Your task to perform on an android device: Add "alienware area 51" to the cart on ebay.com Image 0: 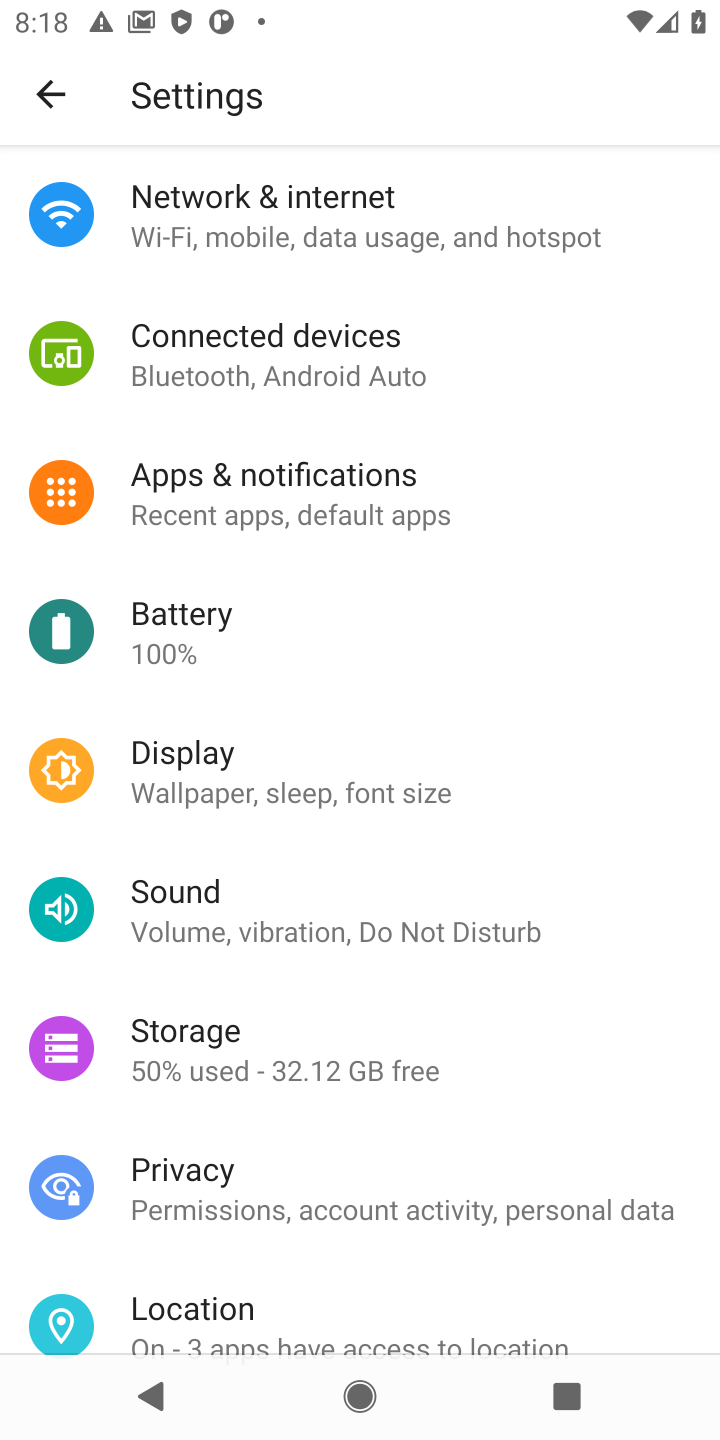
Step 0: press home button
Your task to perform on an android device: Add "alienware area 51" to the cart on ebay.com Image 1: 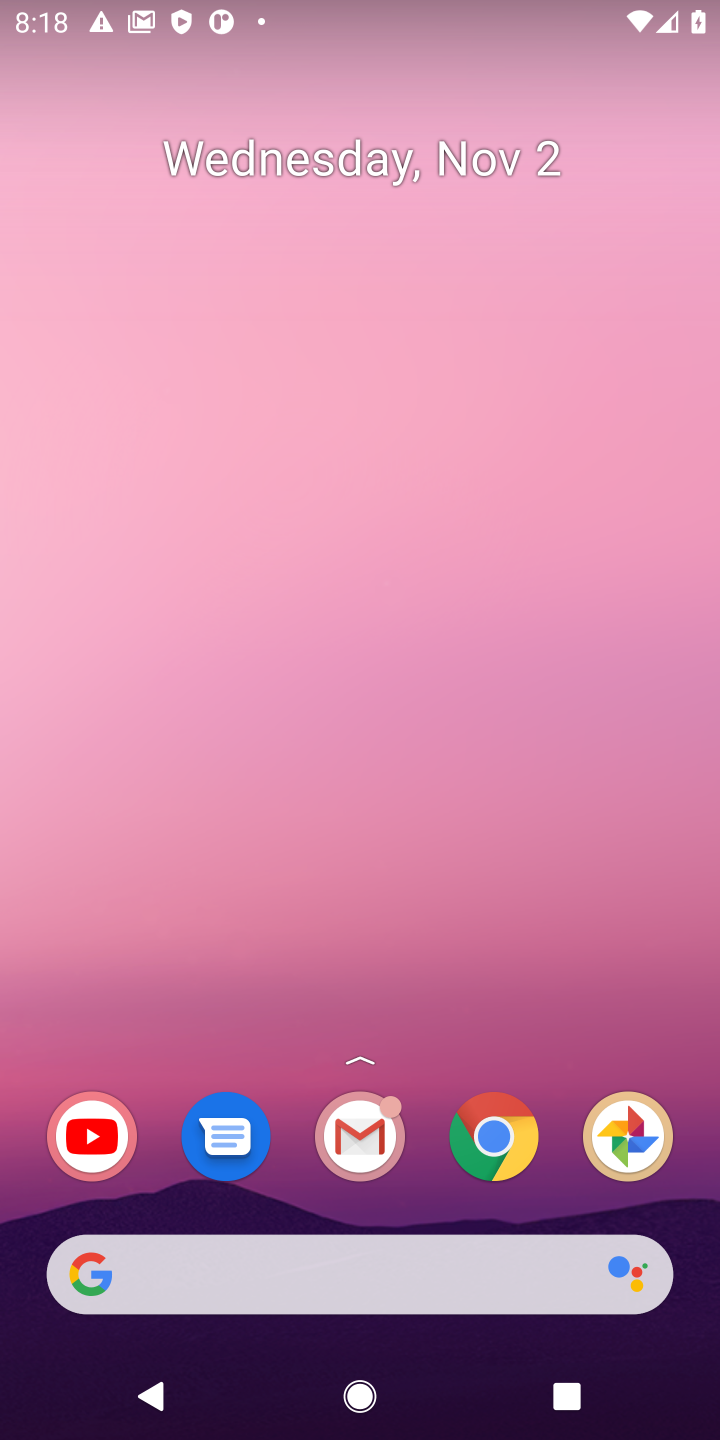
Step 1: drag from (340, 1185) to (321, 322)
Your task to perform on an android device: Add "alienware area 51" to the cart on ebay.com Image 2: 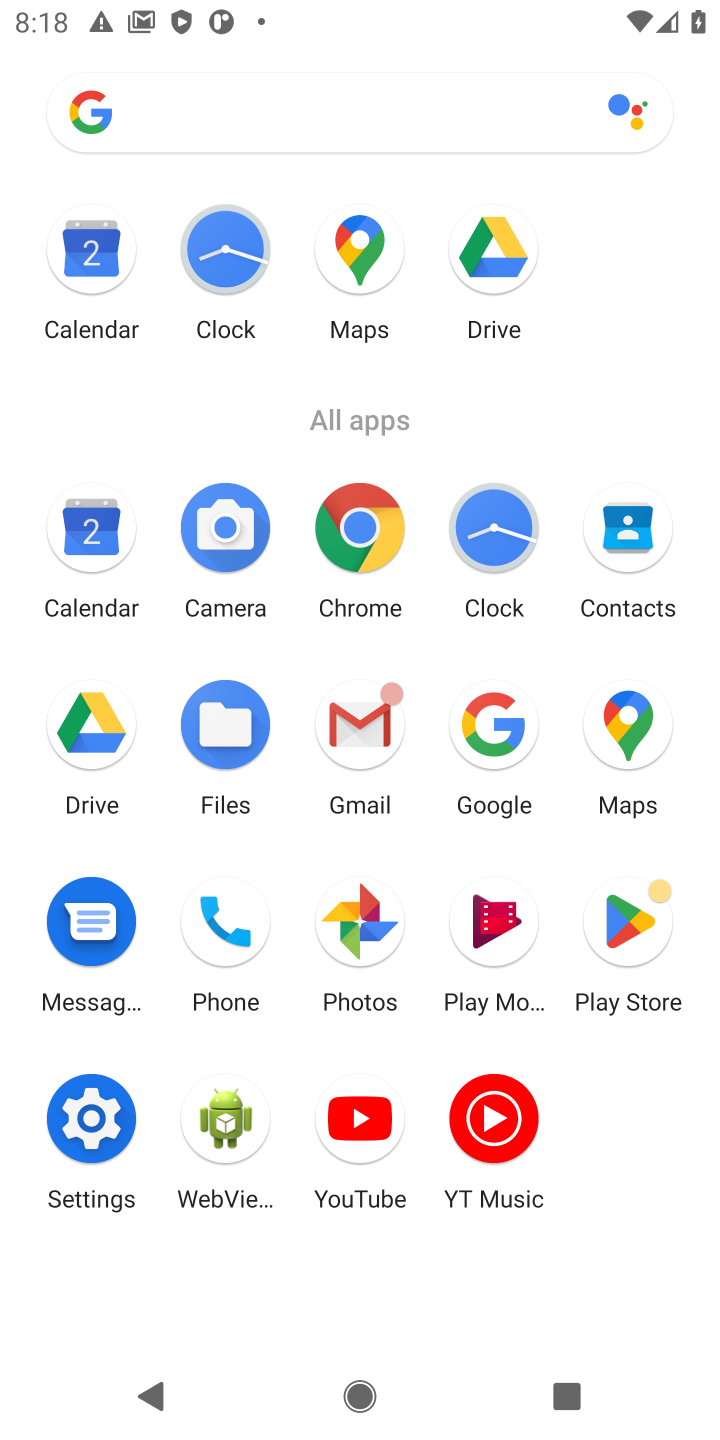
Step 2: click (500, 724)
Your task to perform on an android device: Add "alienware area 51" to the cart on ebay.com Image 3: 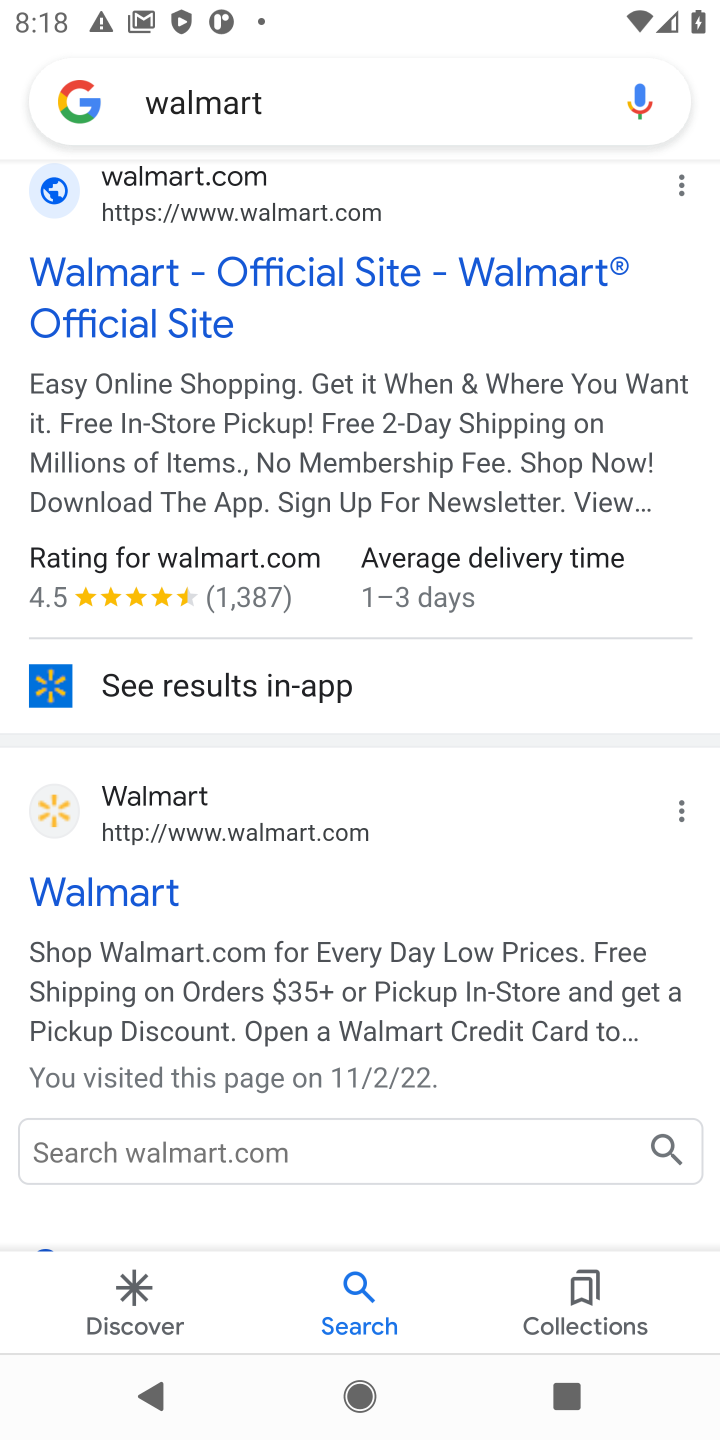
Step 3: click (53, 807)
Your task to perform on an android device: Add "alienware area 51" to the cart on ebay.com Image 4: 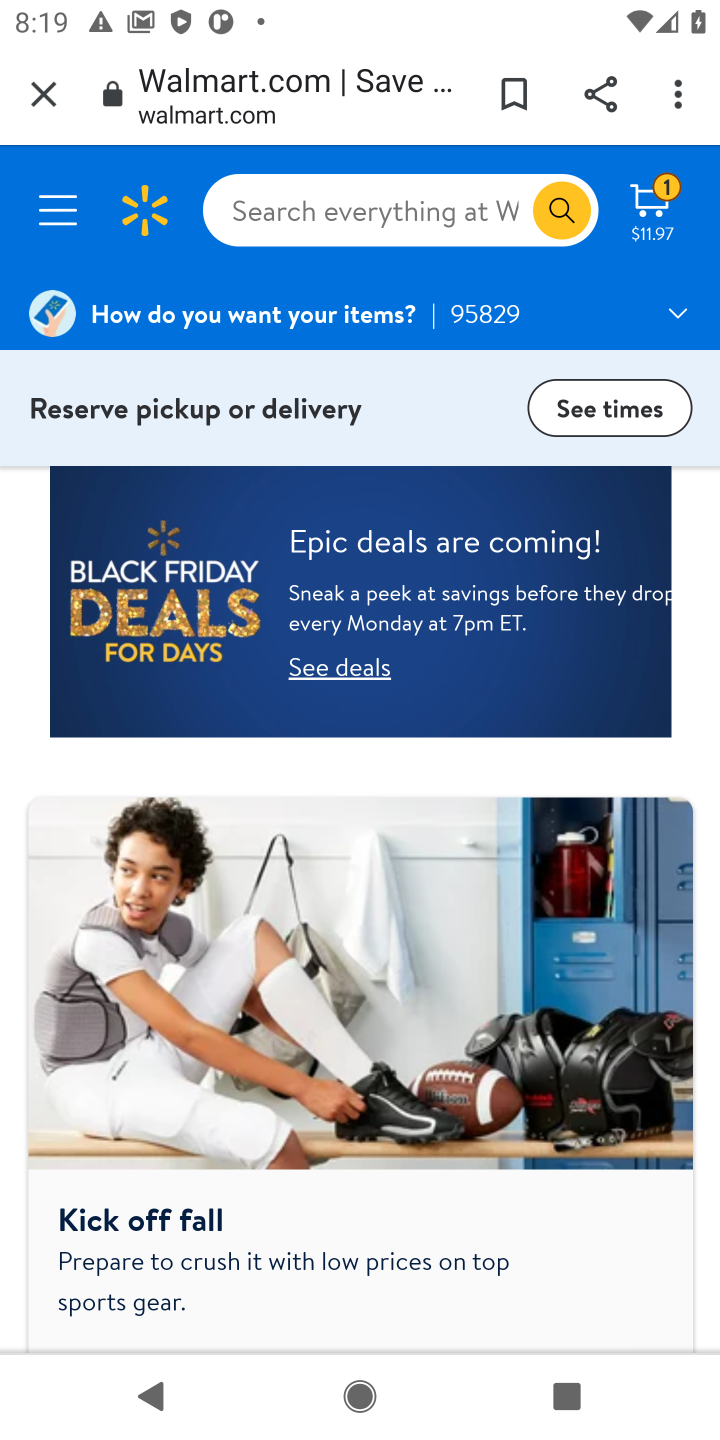
Step 4: click (282, 194)
Your task to perform on an android device: Add "alienware area 51" to the cart on ebay.com Image 5: 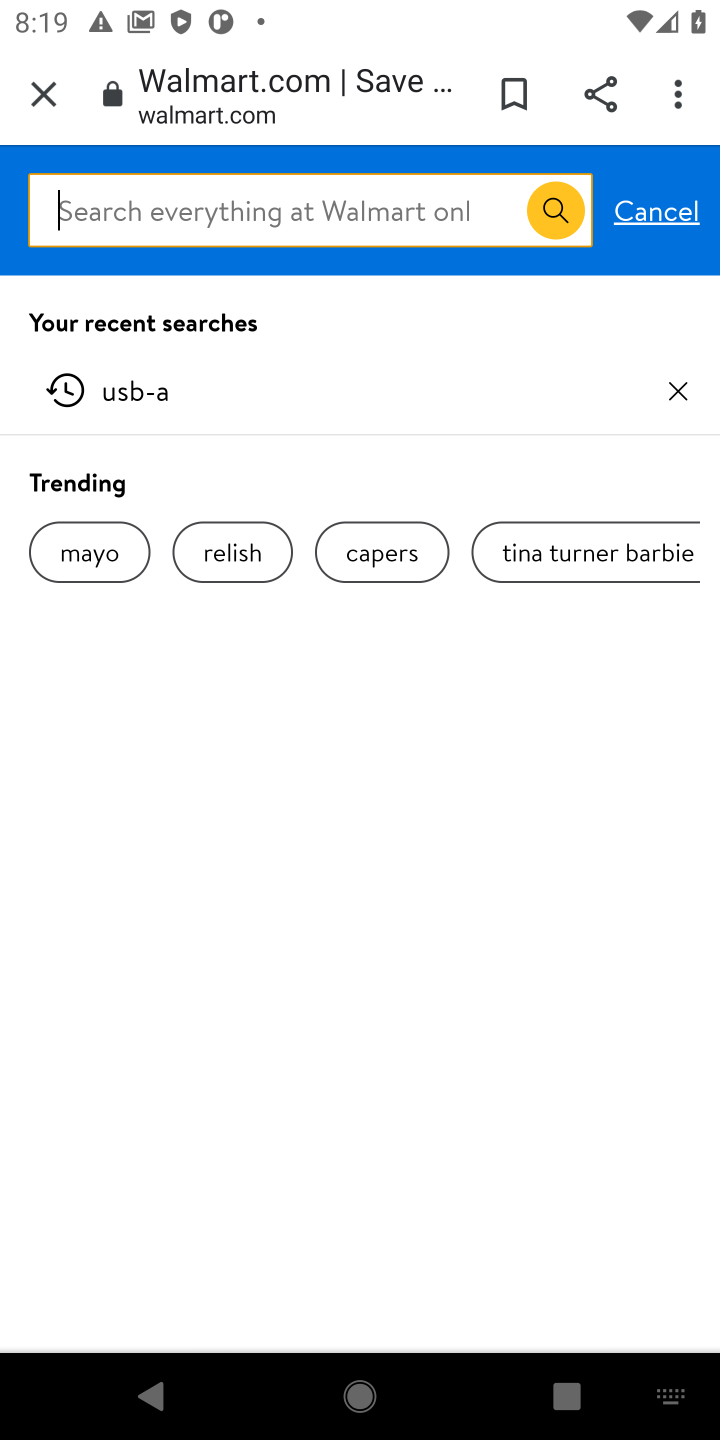
Step 5: click (335, 177)
Your task to perform on an android device: Add "alienware area 51" to the cart on ebay.com Image 6: 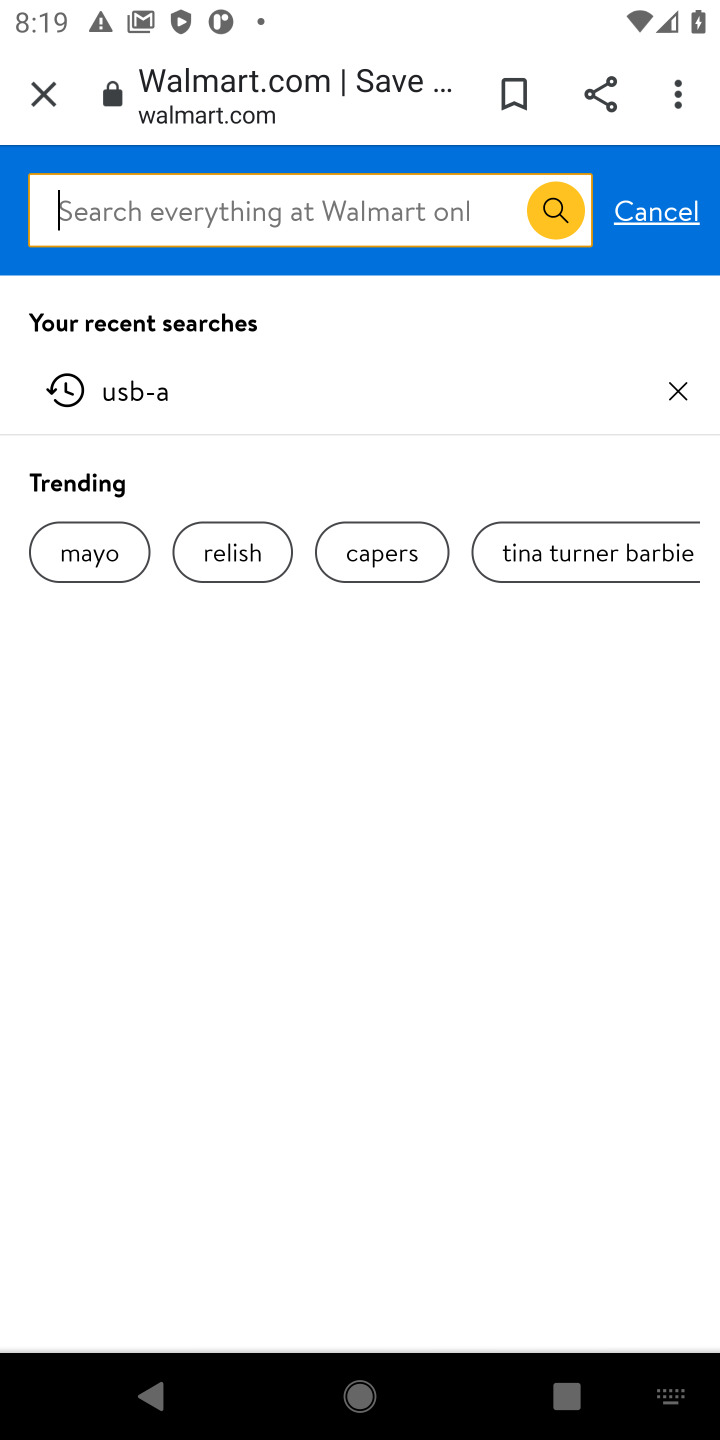
Step 6: click (301, 205)
Your task to perform on an android device: Add "alienware area 51" to the cart on ebay.com Image 7: 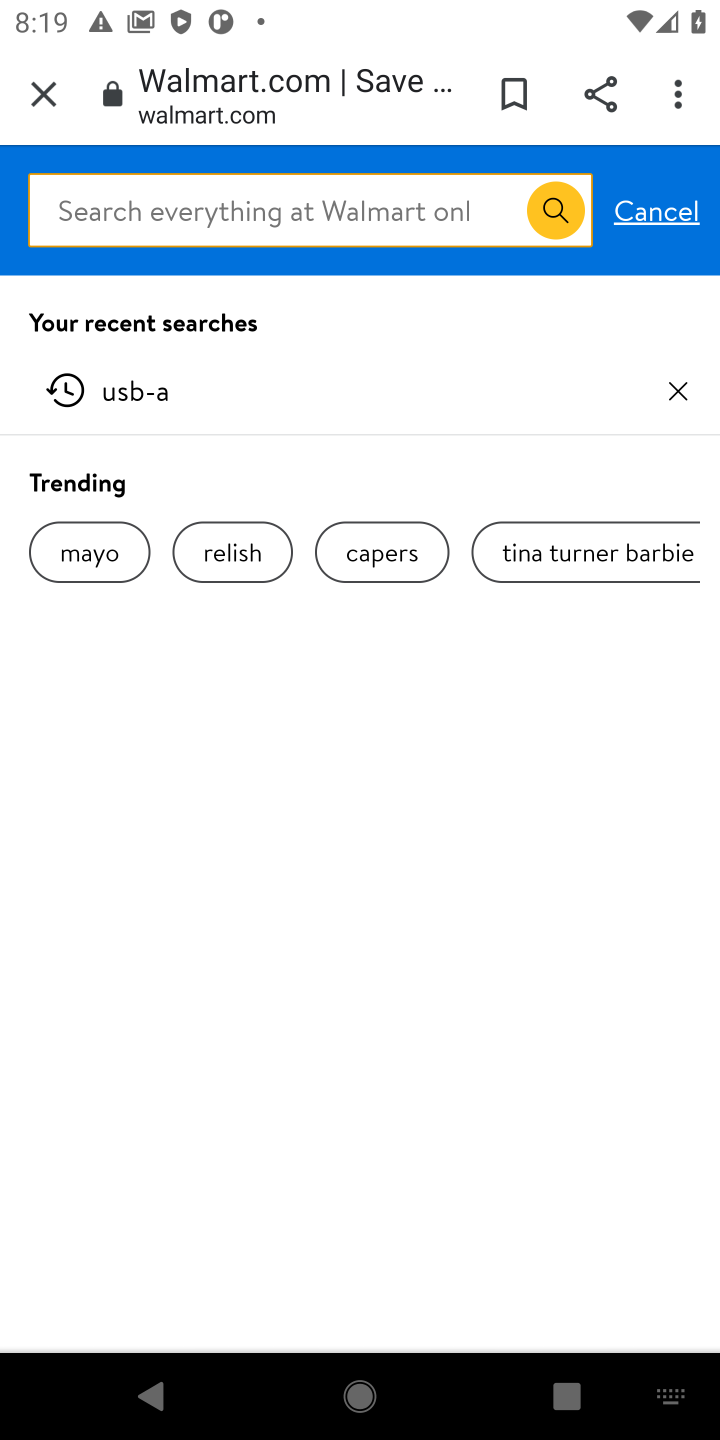
Step 7: type "alienware area 51 "
Your task to perform on an android device: Add "alienware area 51" to the cart on ebay.com Image 8: 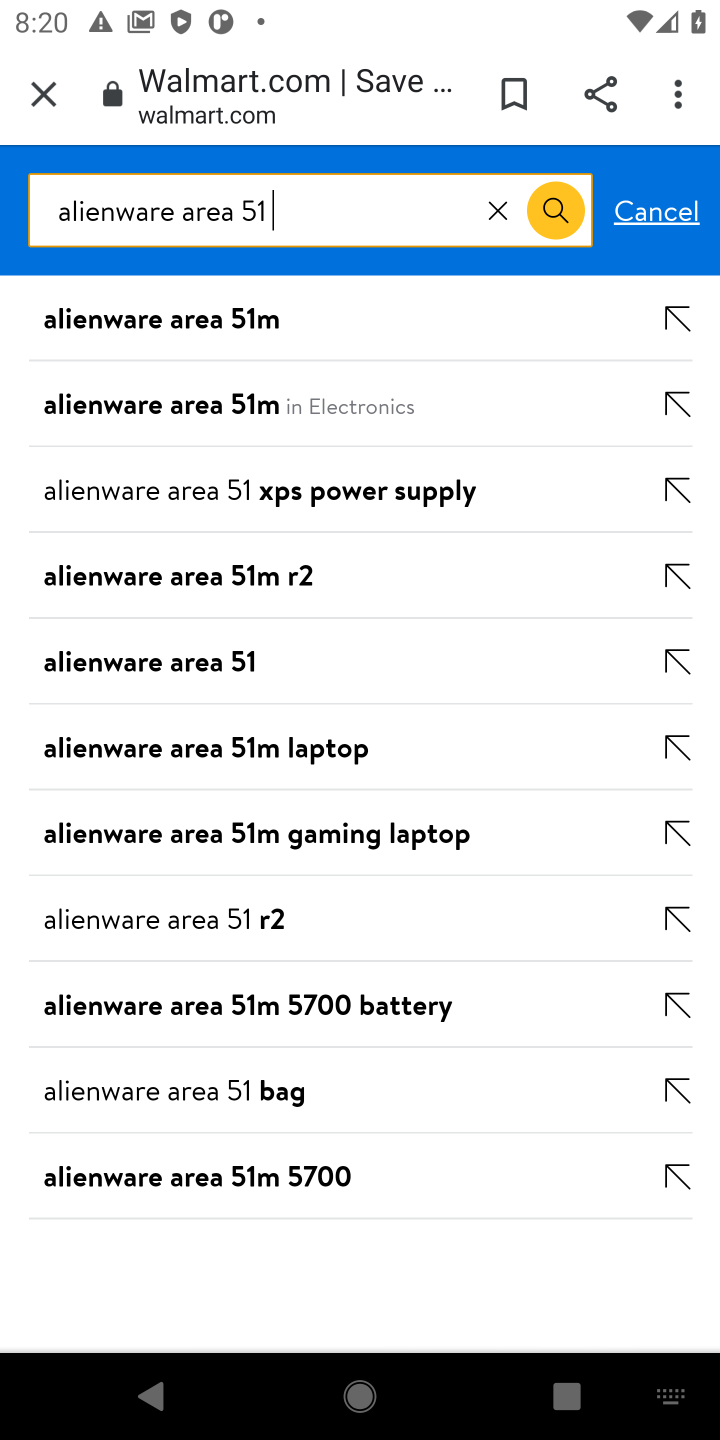
Step 8: click (111, 292)
Your task to perform on an android device: Add "alienware area 51" to the cart on ebay.com Image 9: 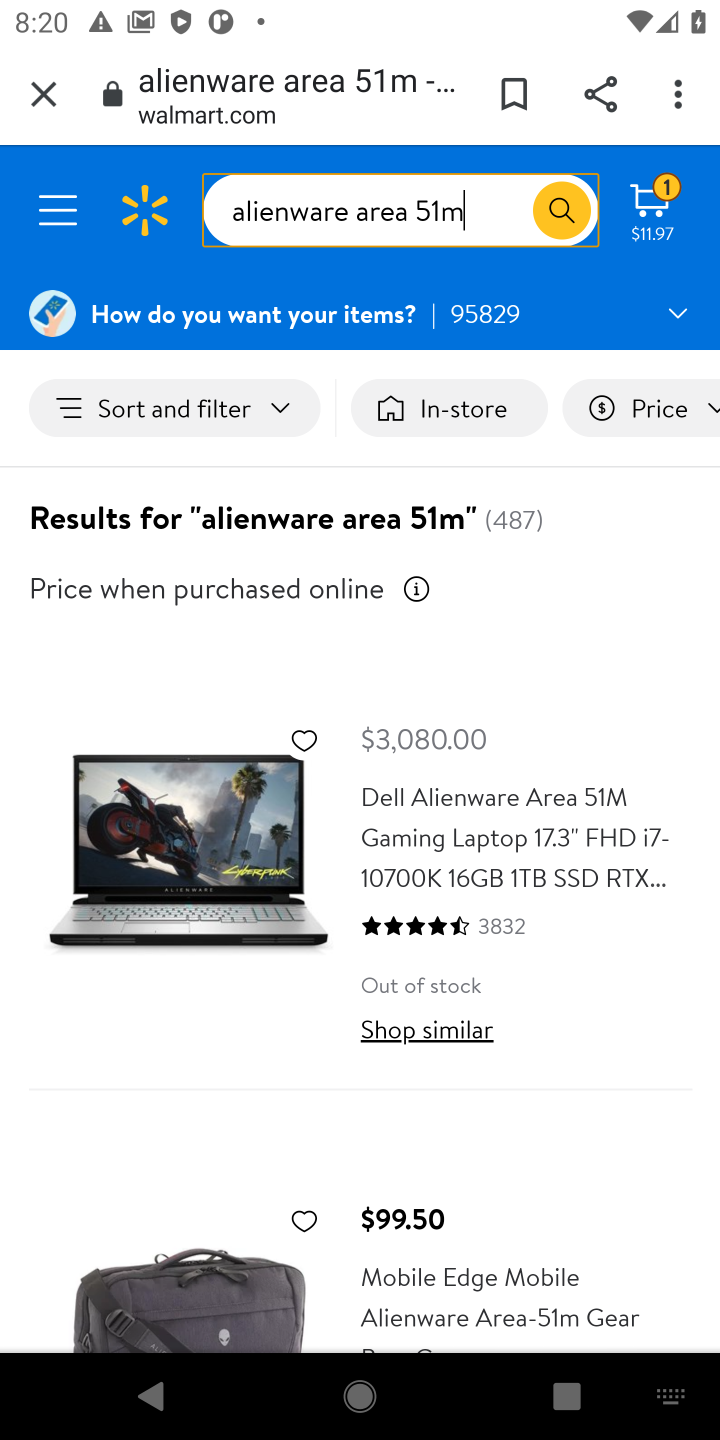
Step 9: click (430, 817)
Your task to perform on an android device: Add "alienware area 51" to the cart on ebay.com Image 10: 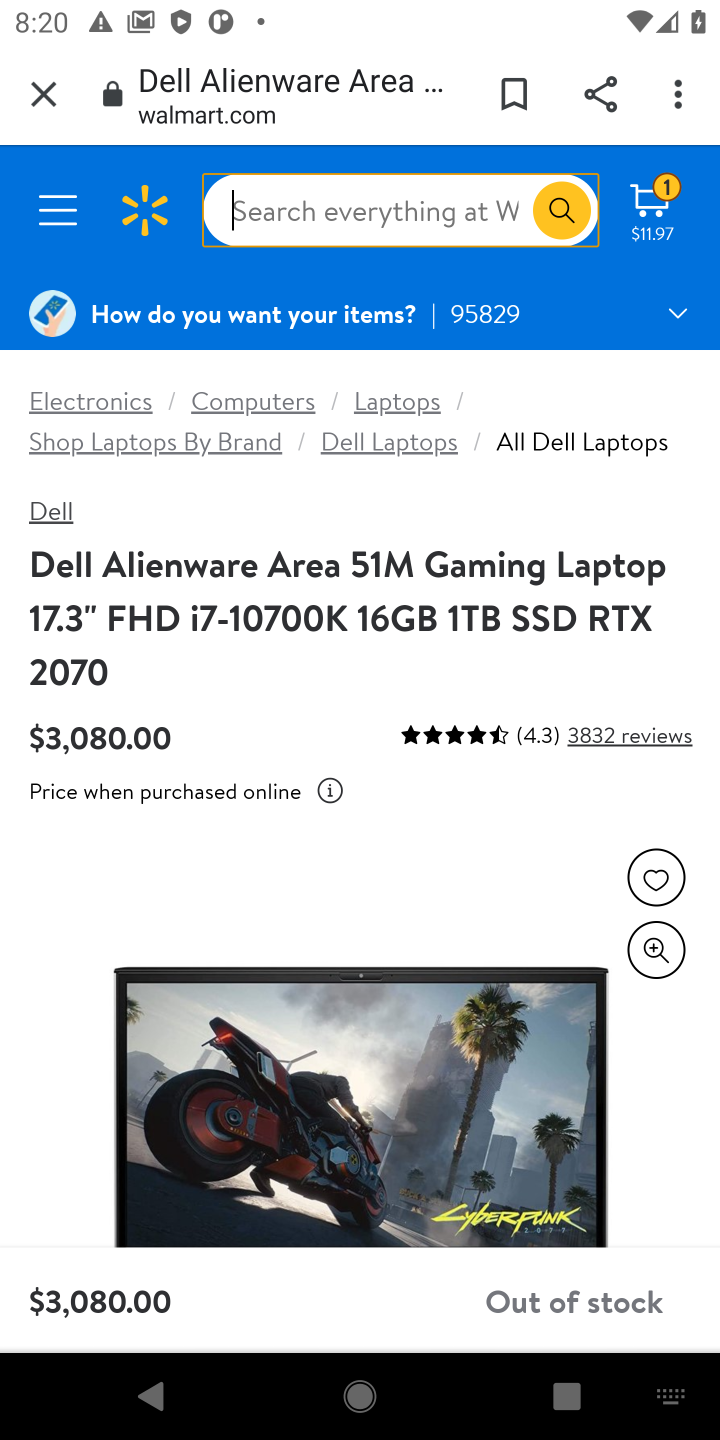
Step 10: drag from (414, 1109) to (433, 374)
Your task to perform on an android device: Add "alienware area 51" to the cart on ebay.com Image 11: 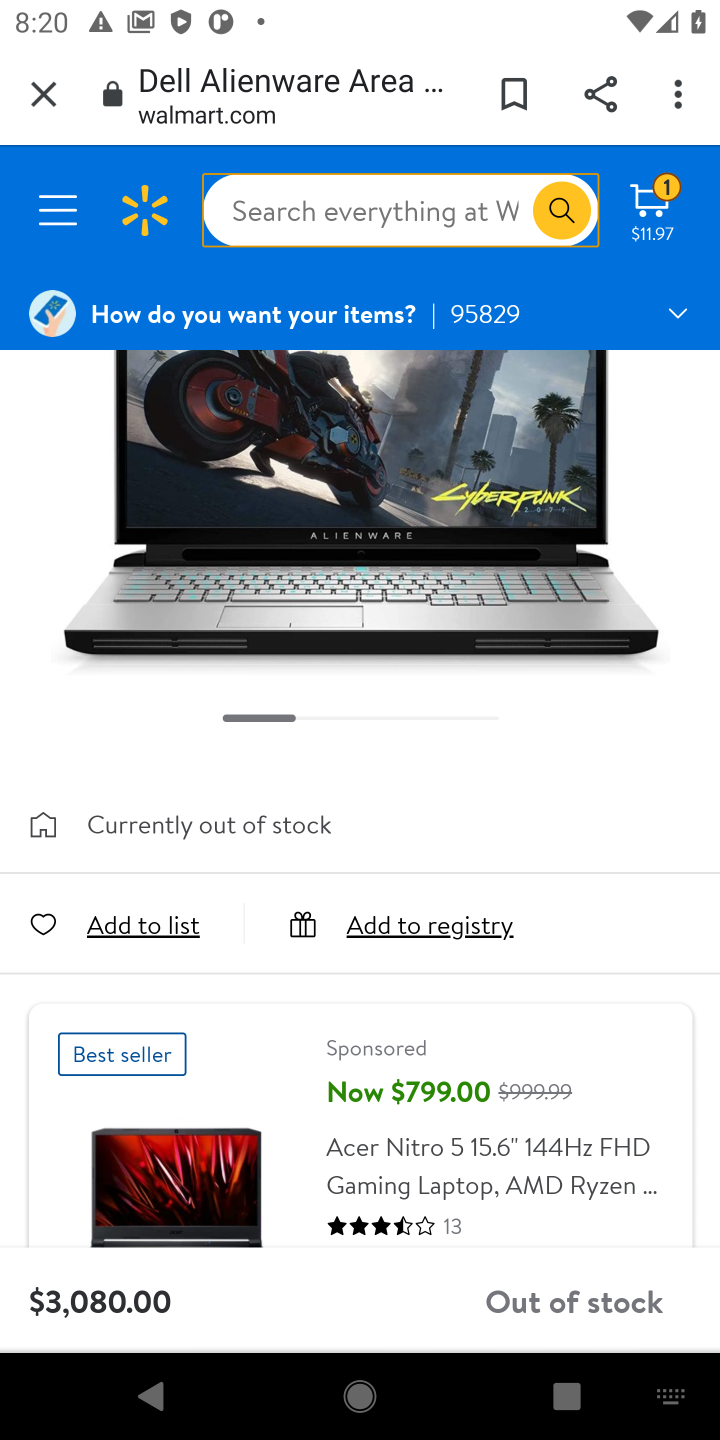
Step 11: click (154, 915)
Your task to perform on an android device: Add "alienware area 51" to the cart on ebay.com Image 12: 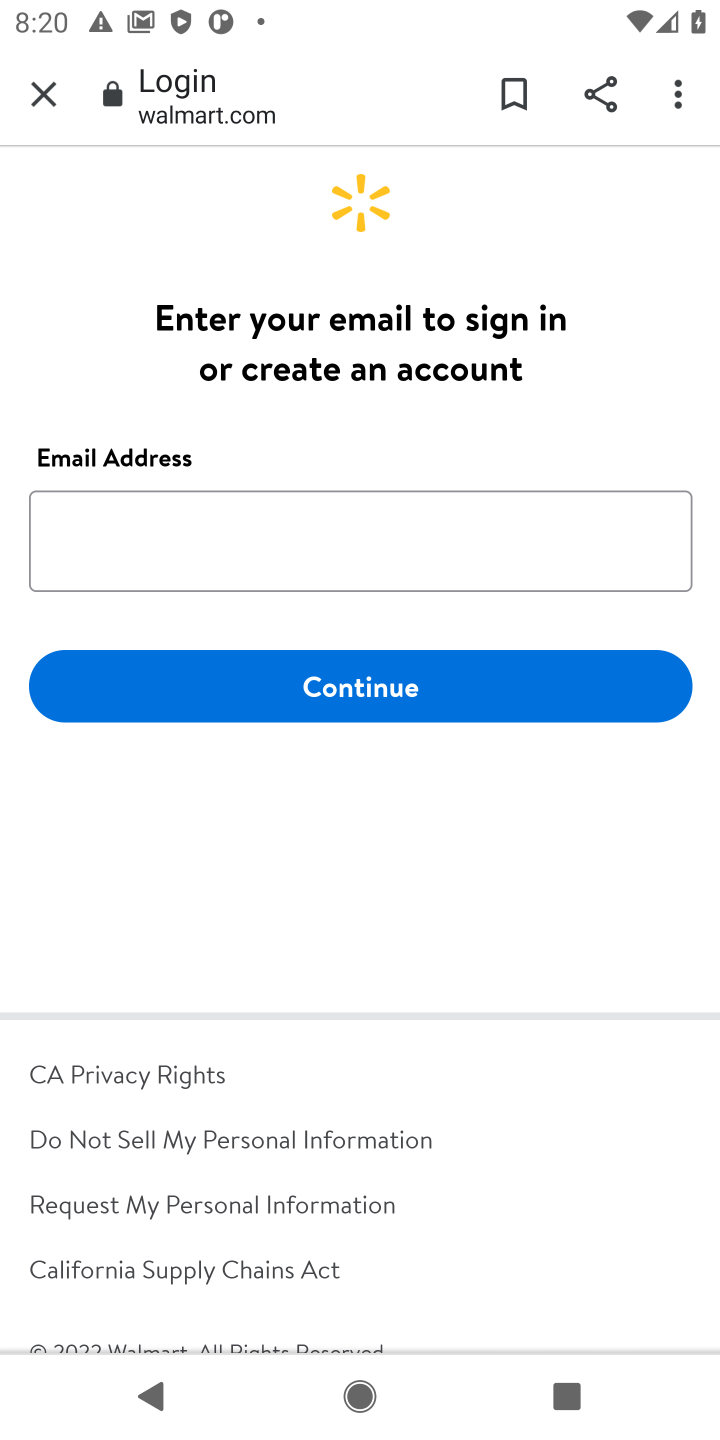
Step 12: press back button
Your task to perform on an android device: Add "alienware area 51" to the cart on ebay.com Image 13: 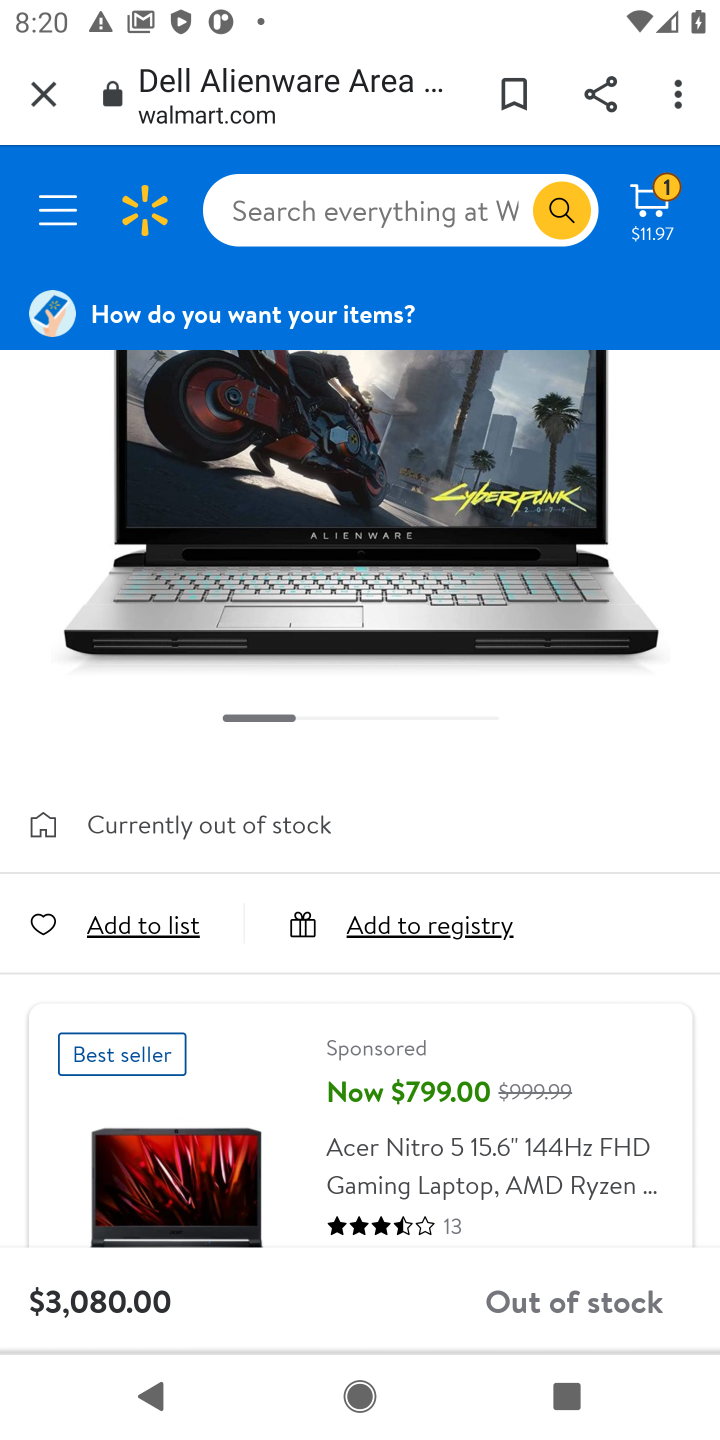
Step 13: drag from (320, 906) to (360, 449)
Your task to perform on an android device: Add "alienware area 51" to the cart on ebay.com Image 14: 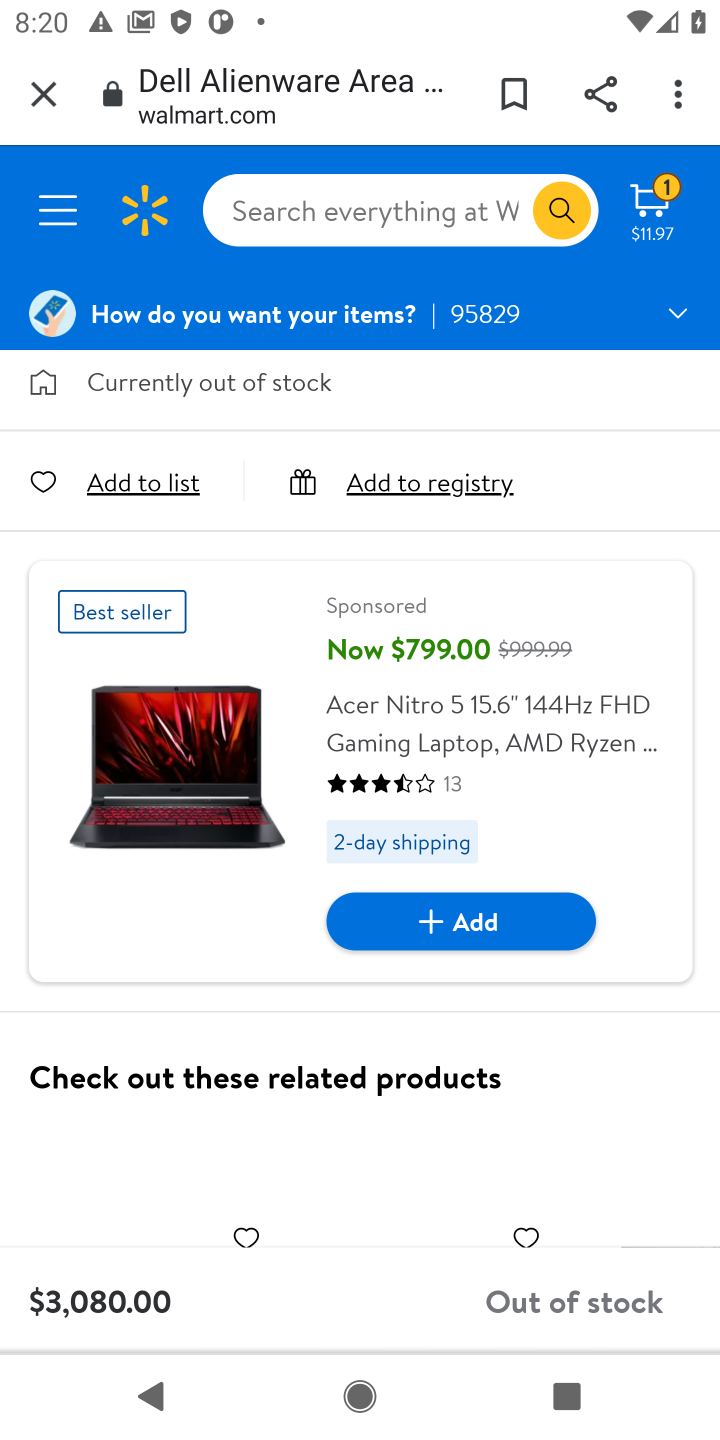
Step 14: click (439, 895)
Your task to perform on an android device: Add "alienware area 51" to the cart on ebay.com Image 15: 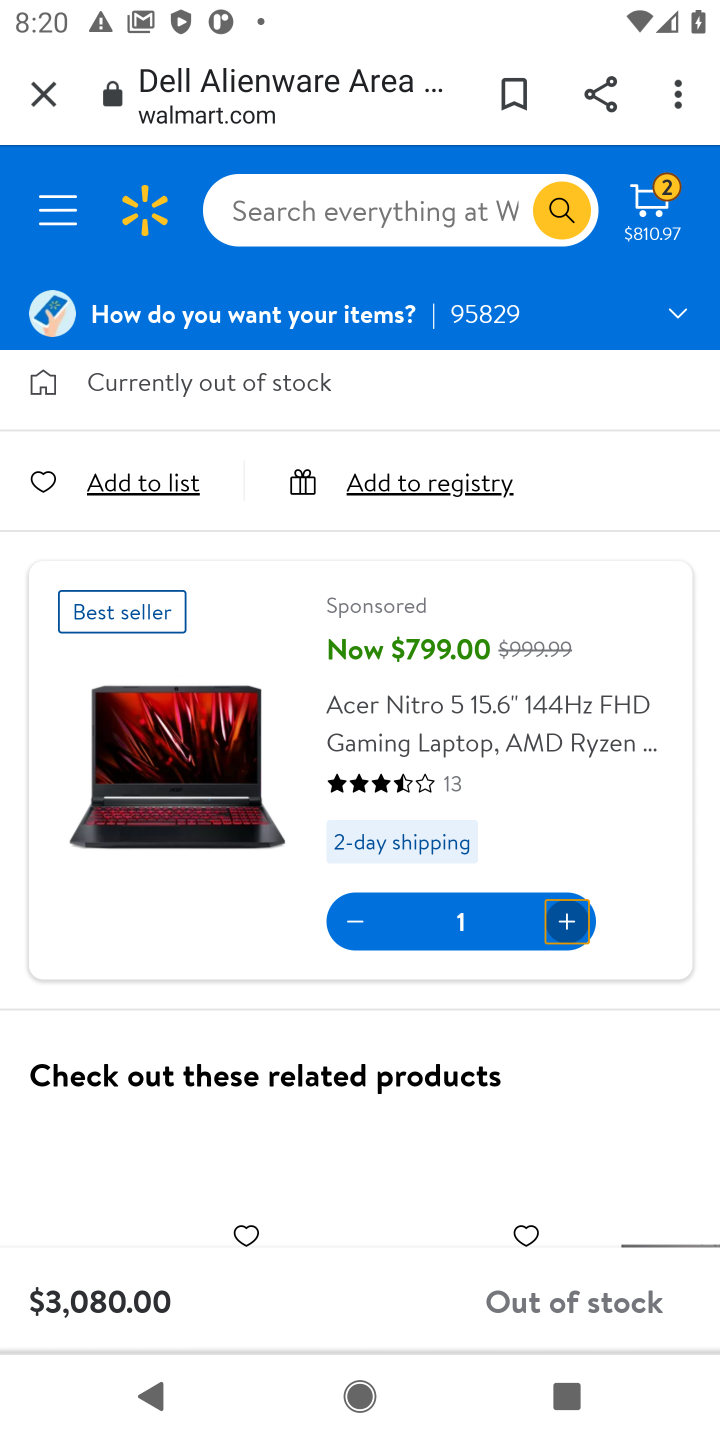
Step 15: click (462, 899)
Your task to perform on an android device: Add "alienware area 51" to the cart on ebay.com Image 16: 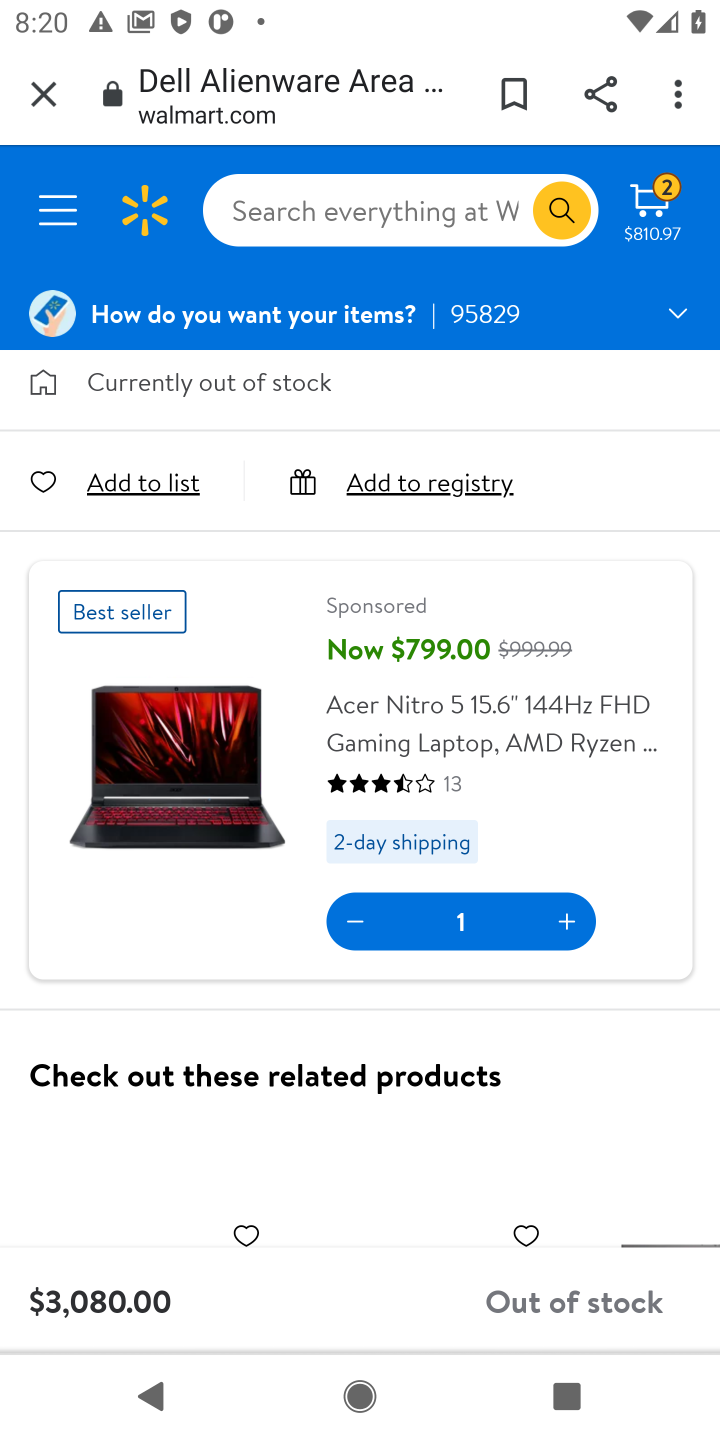
Step 16: click (369, 921)
Your task to perform on an android device: Add "alienware area 51" to the cart on ebay.com Image 17: 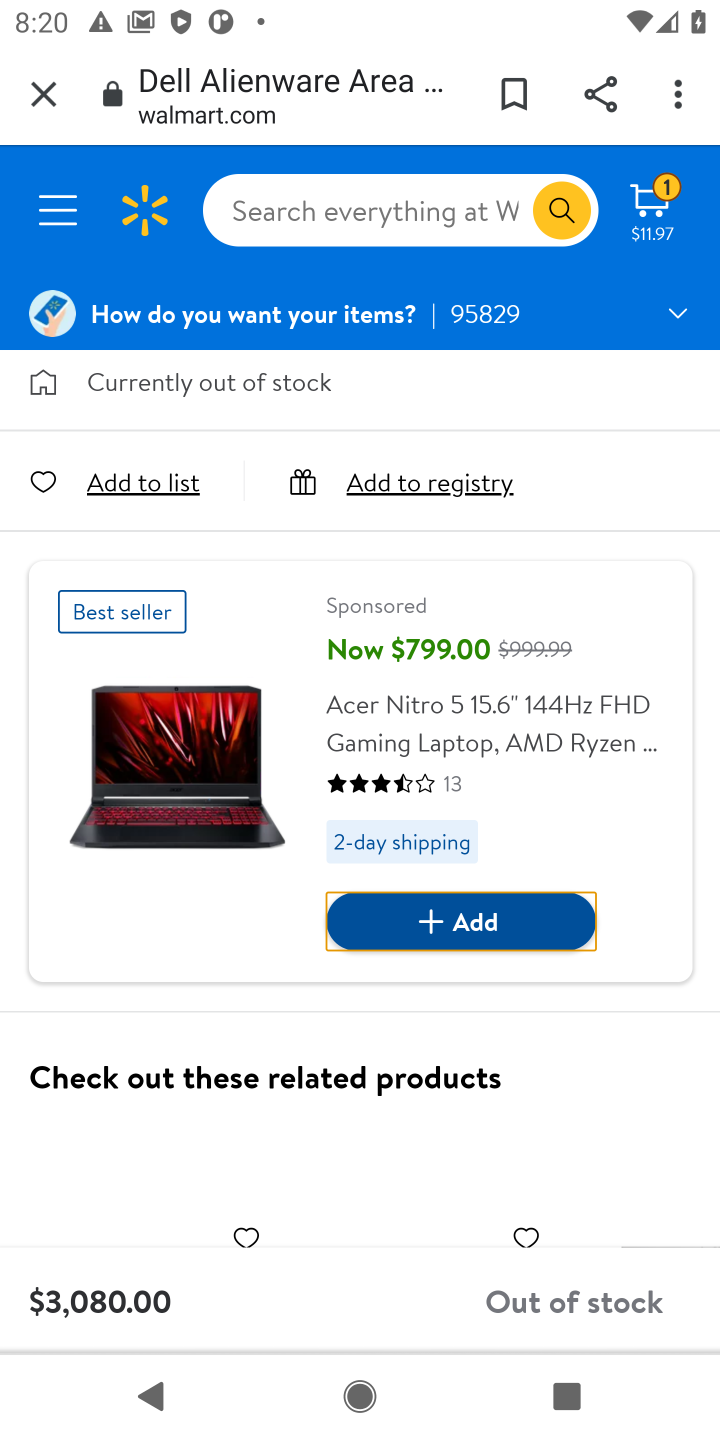
Step 17: task complete